Your task to perform on an android device: Go to sound settings Image 0: 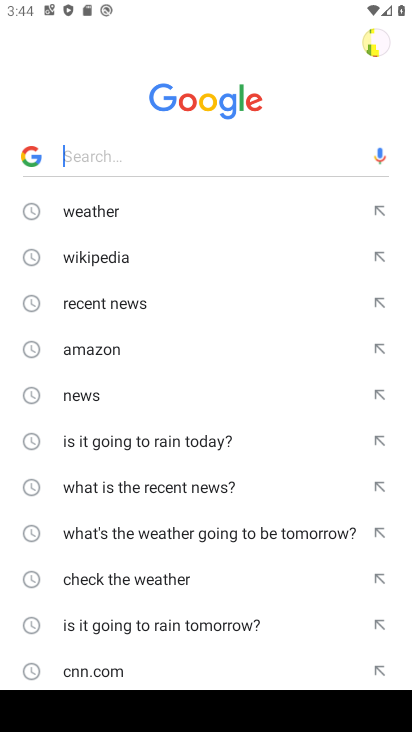
Step 0: press back button
Your task to perform on an android device: Go to sound settings Image 1: 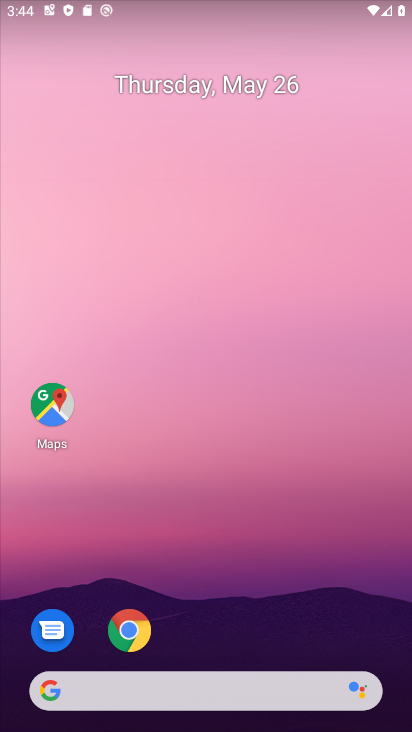
Step 1: drag from (249, 575) to (241, 50)
Your task to perform on an android device: Go to sound settings Image 2: 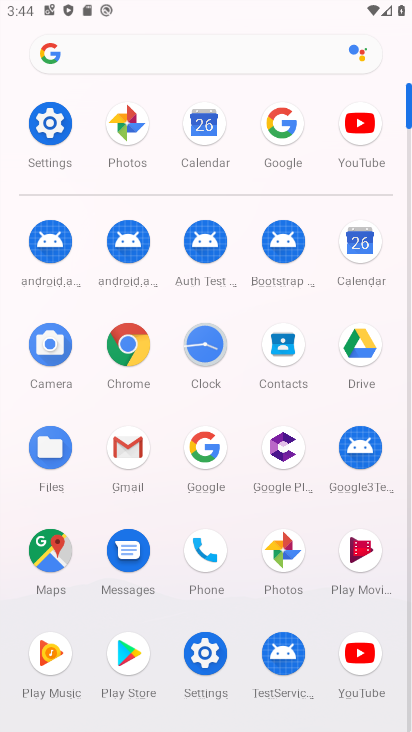
Step 2: click (50, 123)
Your task to perform on an android device: Go to sound settings Image 3: 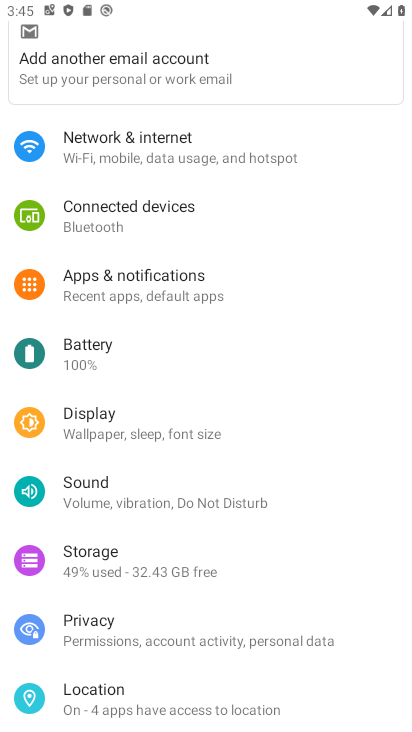
Step 3: click (101, 493)
Your task to perform on an android device: Go to sound settings Image 4: 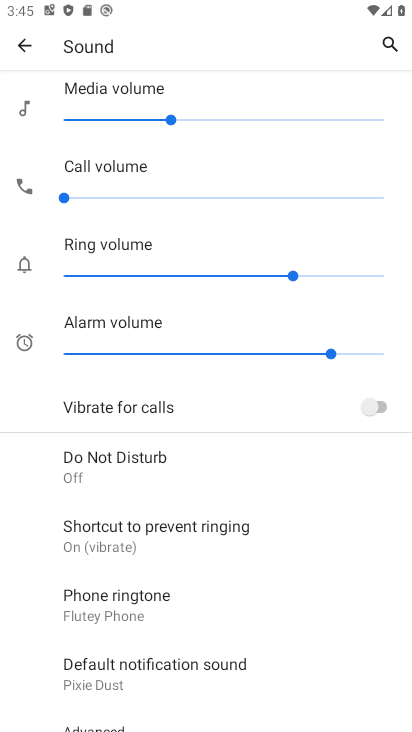
Step 4: task complete